Your task to perform on an android device: Empty the shopping cart on ebay.com. Search for "razer blackwidow" on ebay.com, select the first entry, and add it to the cart. Image 0: 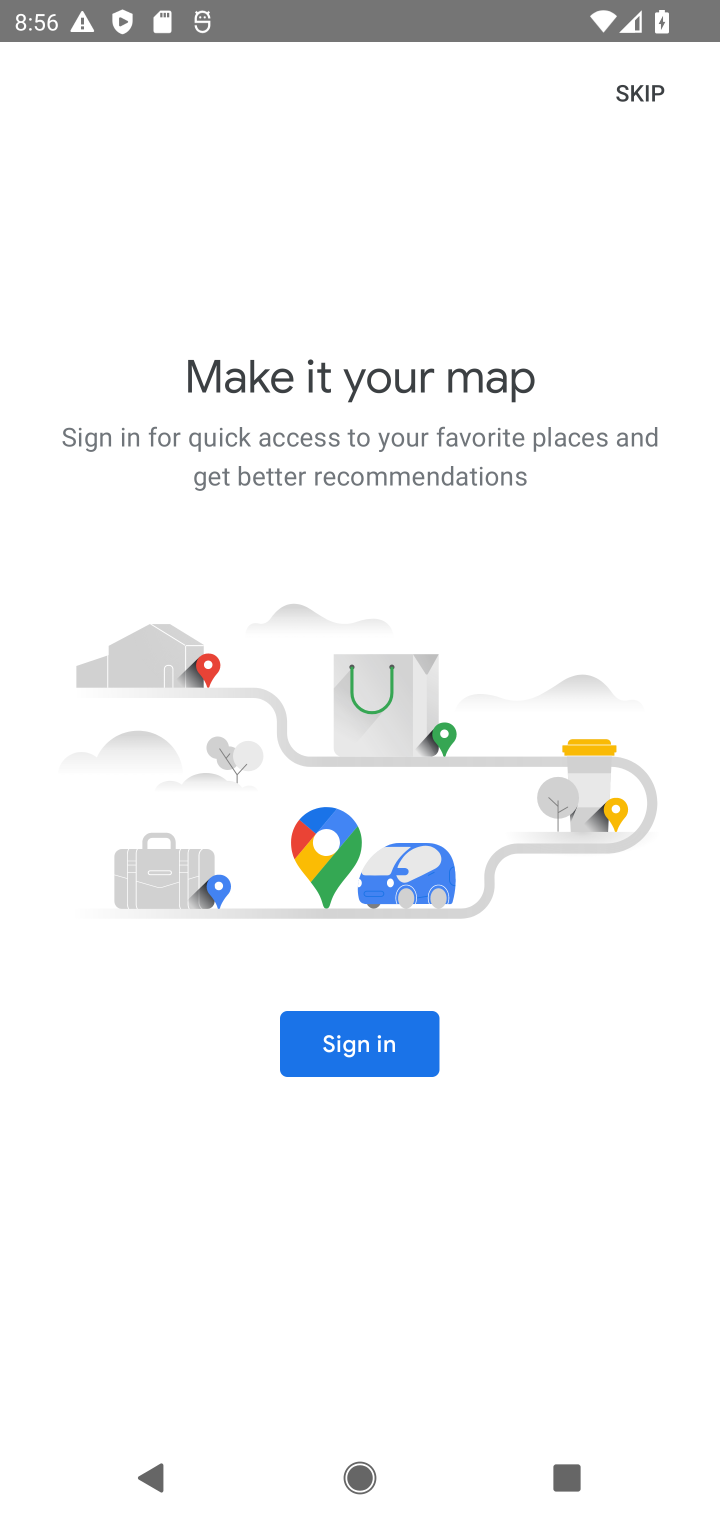
Step 0: press home button
Your task to perform on an android device: Empty the shopping cart on ebay.com. Search for "razer blackwidow" on ebay.com, select the first entry, and add it to the cart. Image 1: 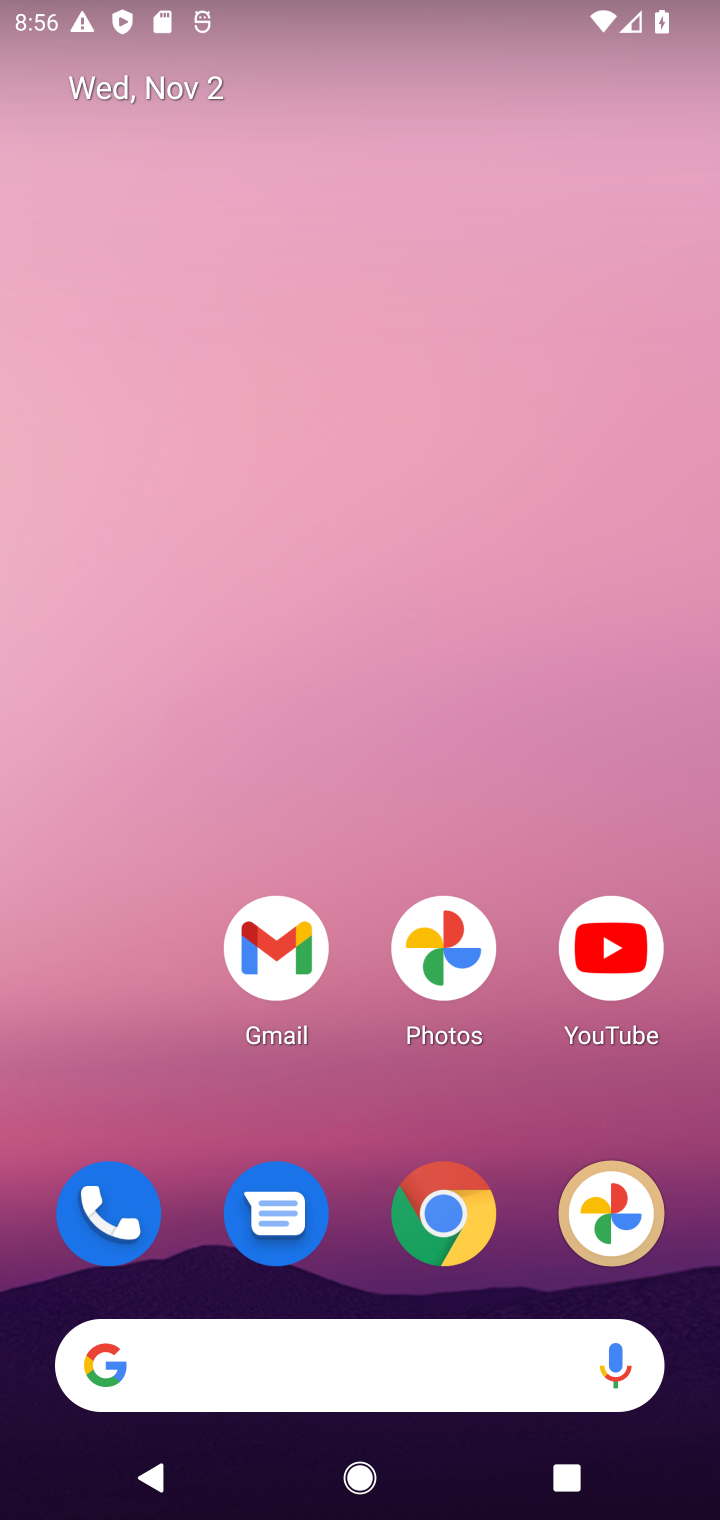
Step 1: click (464, 1231)
Your task to perform on an android device: Empty the shopping cart on ebay.com. Search for "razer blackwidow" on ebay.com, select the first entry, and add it to the cart. Image 2: 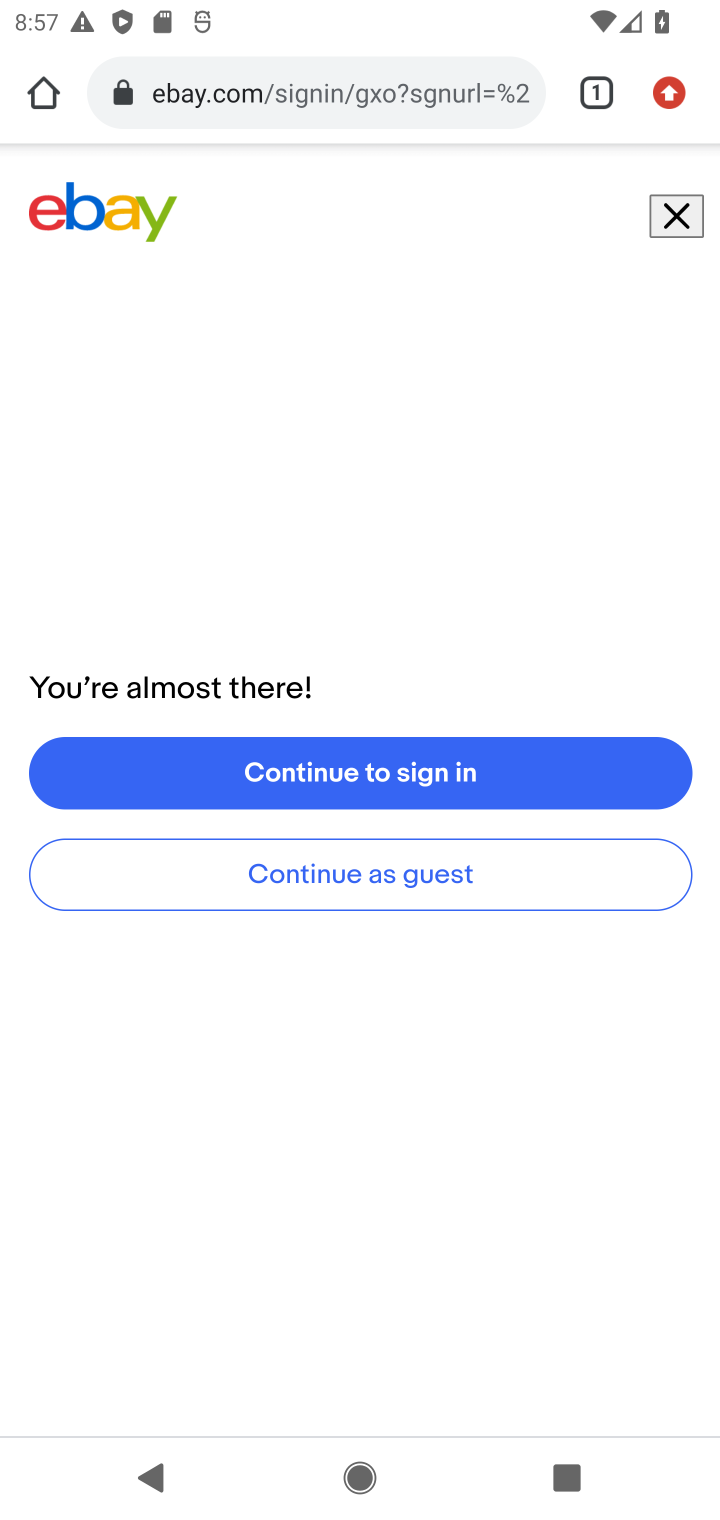
Step 2: click (678, 212)
Your task to perform on an android device: Empty the shopping cart on ebay.com. Search for "razer blackwidow" on ebay.com, select the first entry, and add it to the cart. Image 3: 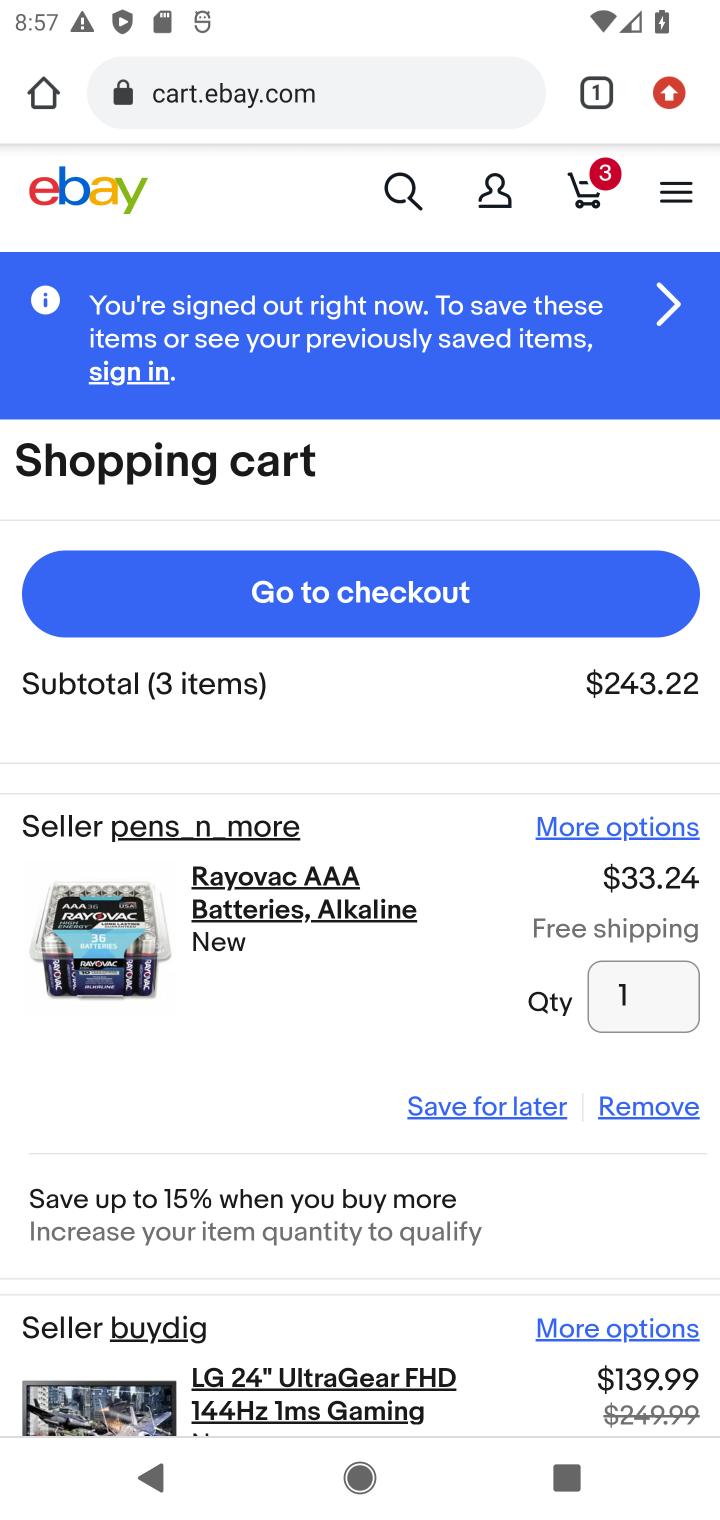
Step 3: click (581, 189)
Your task to perform on an android device: Empty the shopping cart on ebay.com. Search for "razer blackwidow" on ebay.com, select the first entry, and add it to the cart. Image 4: 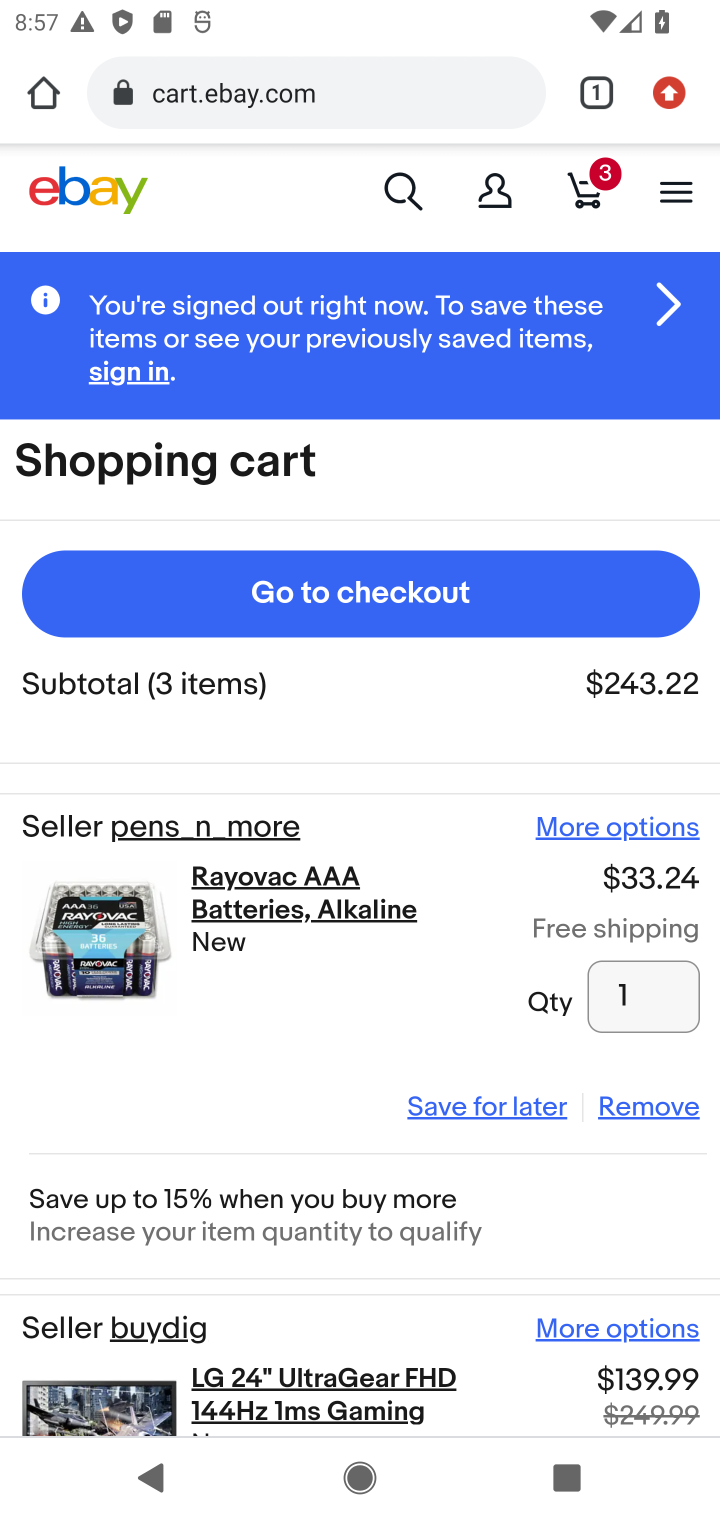
Step 4: click (662, 1108)
Your task to perform on an android device: Empty the shopping cart on ebay.com. Search for "razer blackwidow" on ebay.com, select the first entry, and add it to the cart. Image 5: 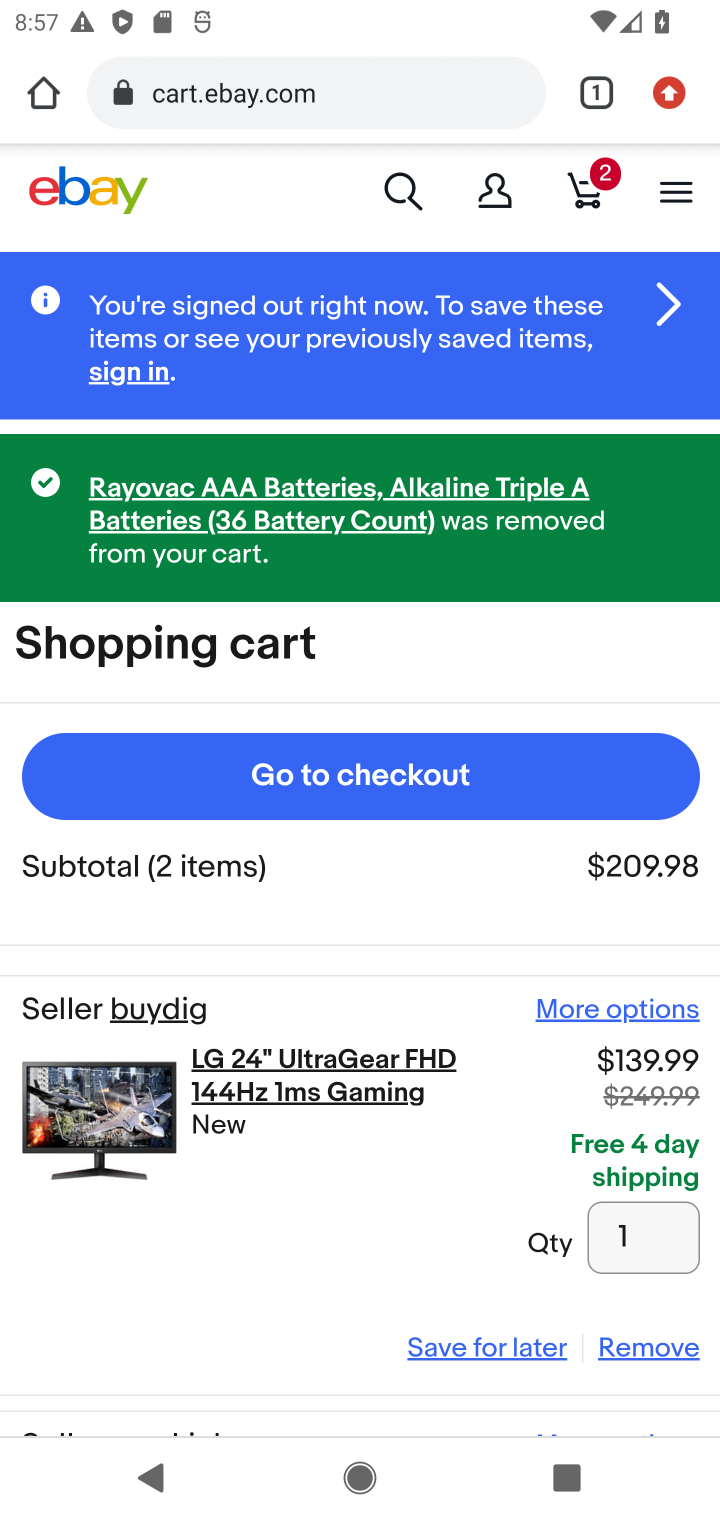
Step 5: click (633, 1341)
Your task to perform on an android device: Empty the shopping cart on ebay.com. Search for "razer blackwidow" on ebay.com, select the first entry, and add it to the cart. Image 6: 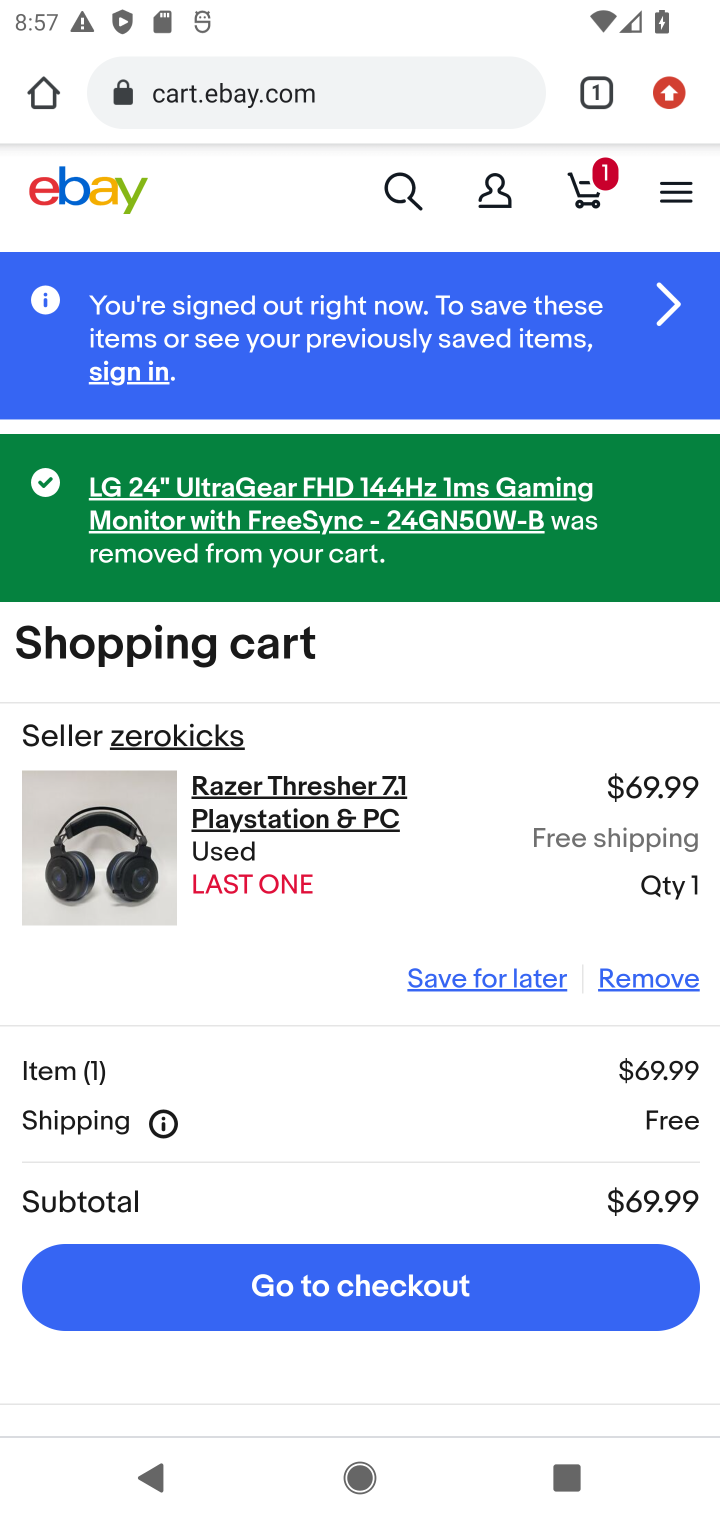
Step 6: click (616, 986)
Your task to perform on an android device: Empty the shopping cart on ebay.com. Search for "razer blackwidow" on ebay.com, select the first entry, and add it to the cart. Image 7: 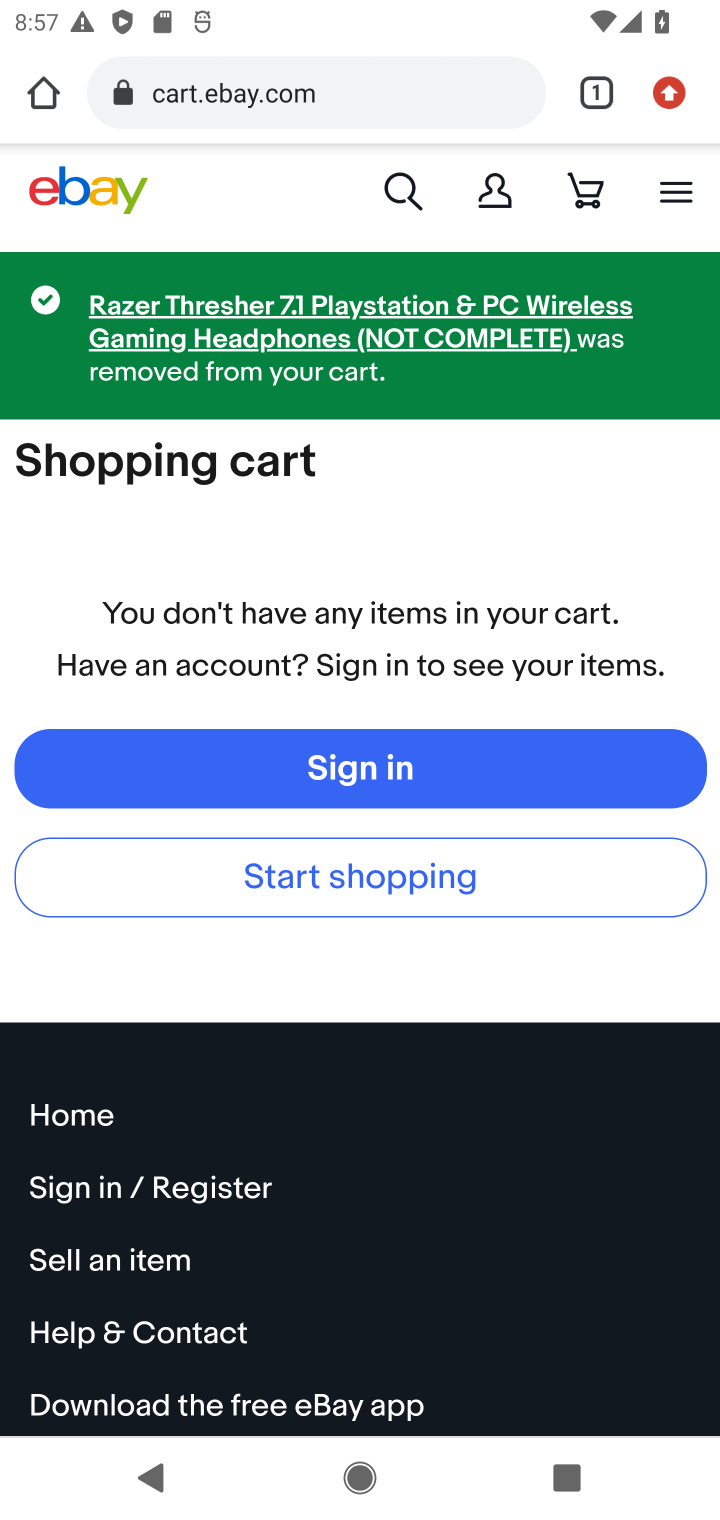
Step 7: click (404, 188)
Your task to perform on an android device: Empty the shopping cart on ebay.com. Search for "razer blackwidow" on ebay.com, select the first entry, and add it to the cart. Image 8: 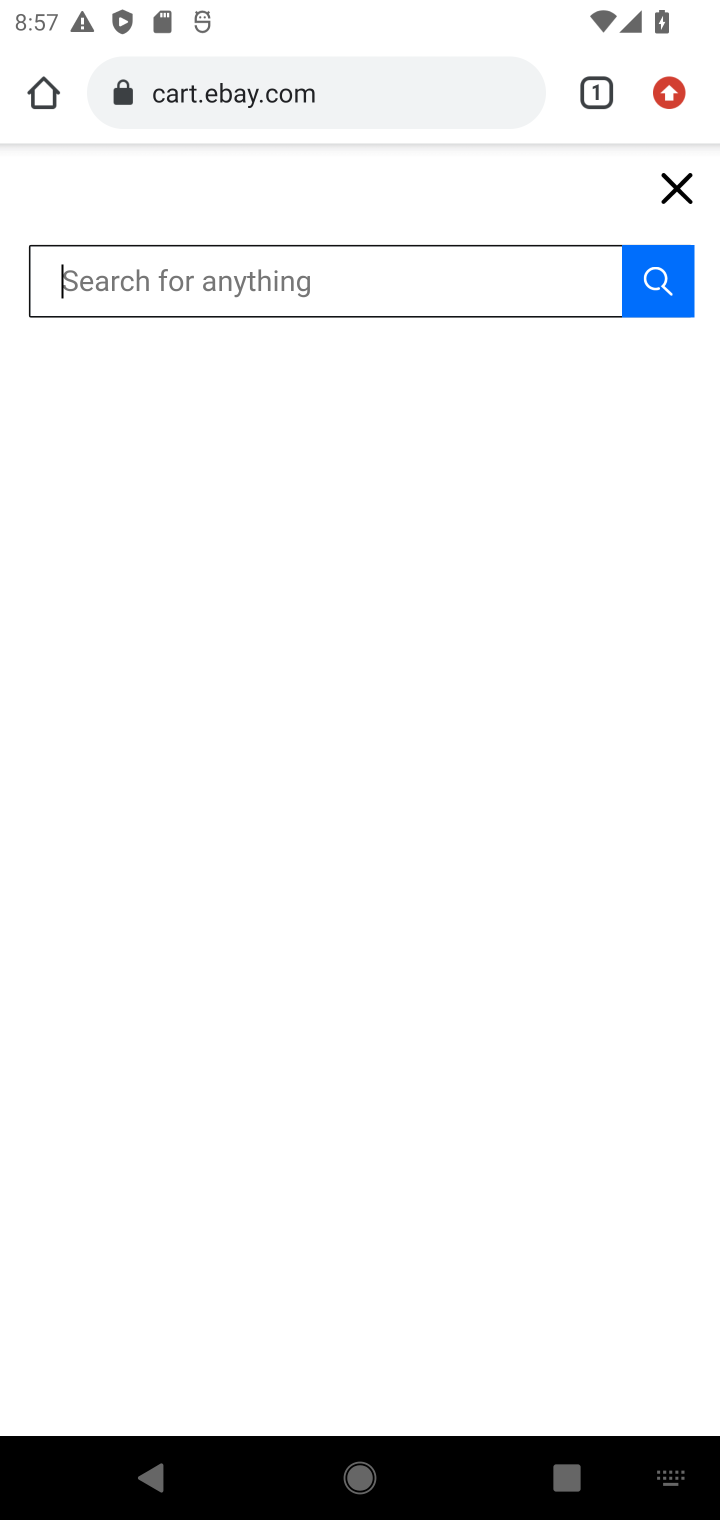
Step 8: type "razer blackwidow"
Your task to perform on an android device: Empty the shopping cart on ebay.com. Search for "razer blackwidow" on ebay.com, select the first entry, and add it to the cart. Image 9: 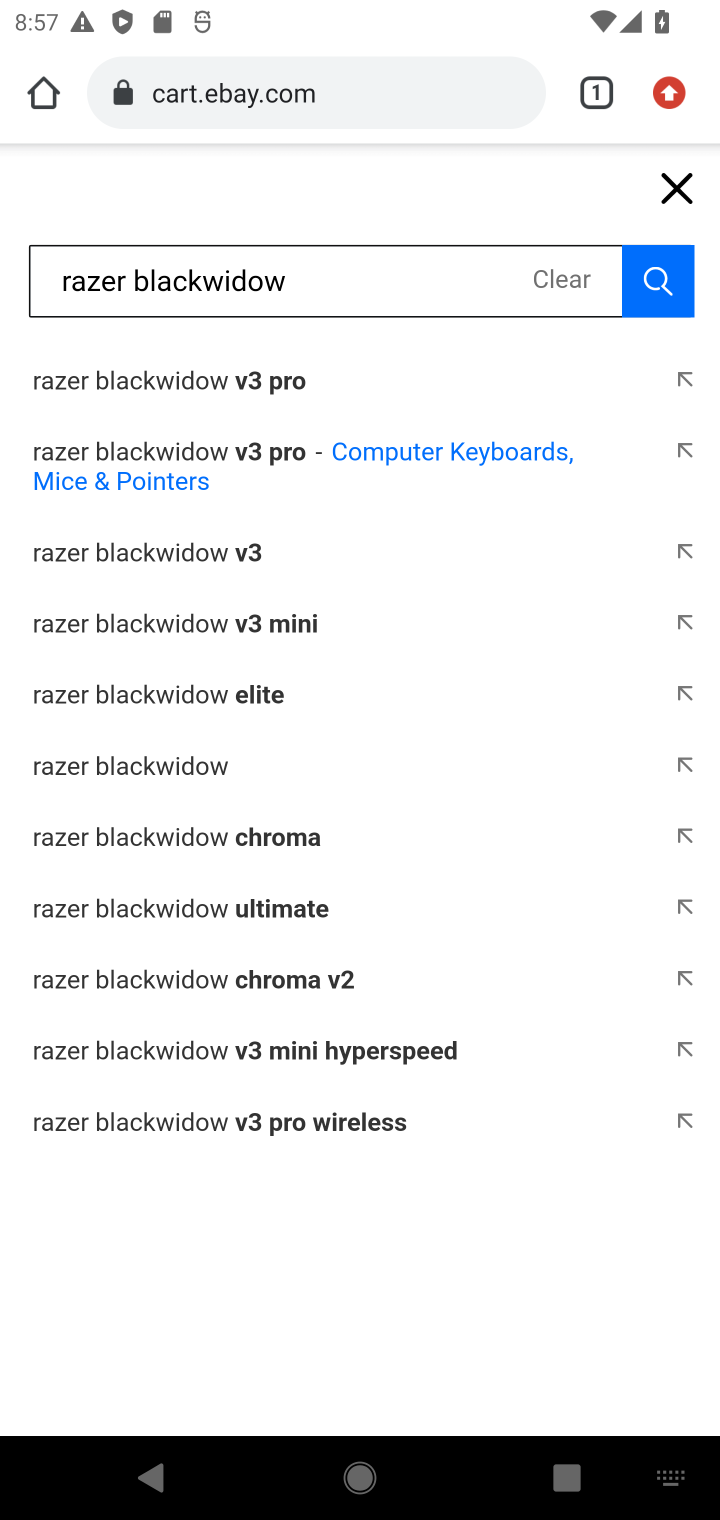
Step 9: click (142, 775)
Your task to perform on an android device: Empty the shopping cart on ebay.com. Search for "razer blackwidow" on ebay.com, select the first entry, and add it to the cart. Image 10: 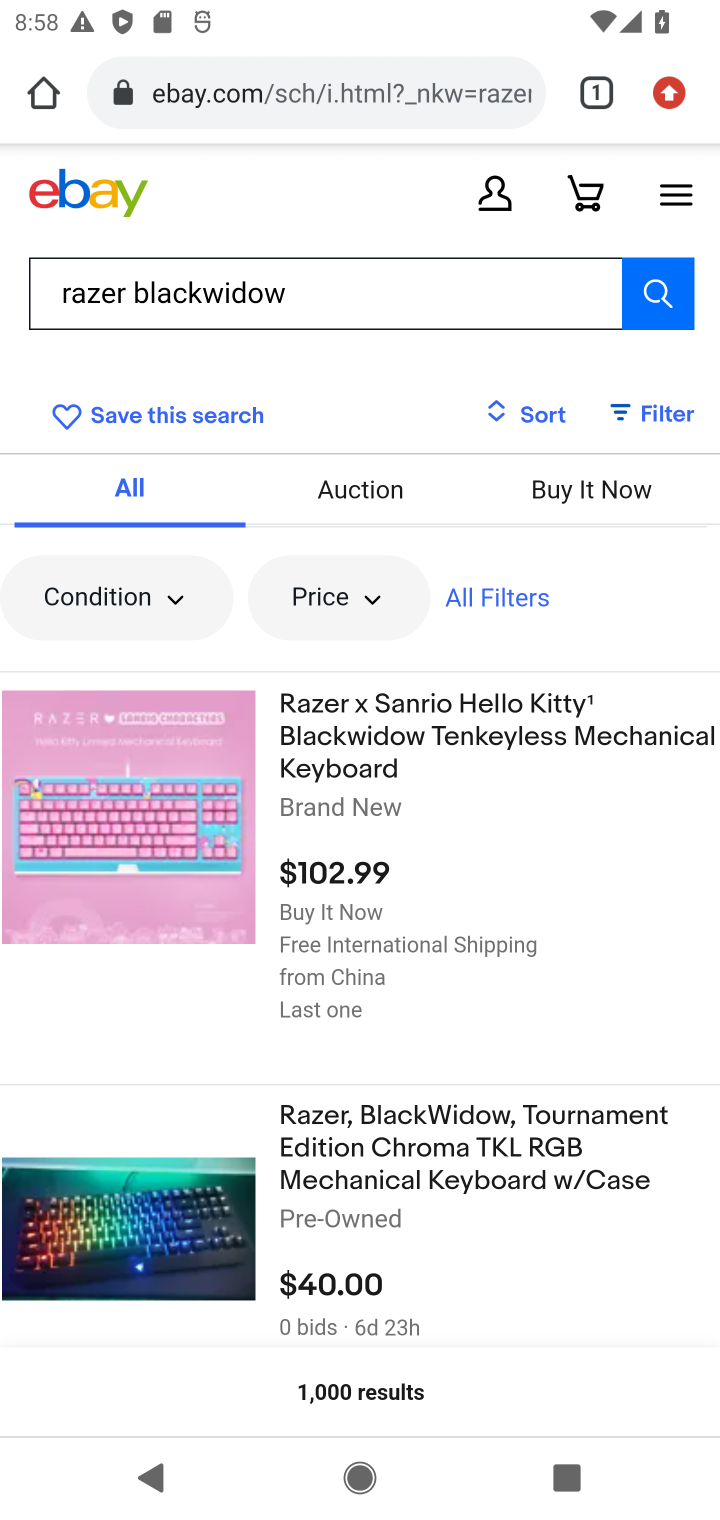
Step 10: click (163, 796)
Your task to perform on an android device: Empty the shopping cart on ebay.com. Search for "razer blackwidow" on ebay.com, select the first entry, and add it to the cart. Image 11: 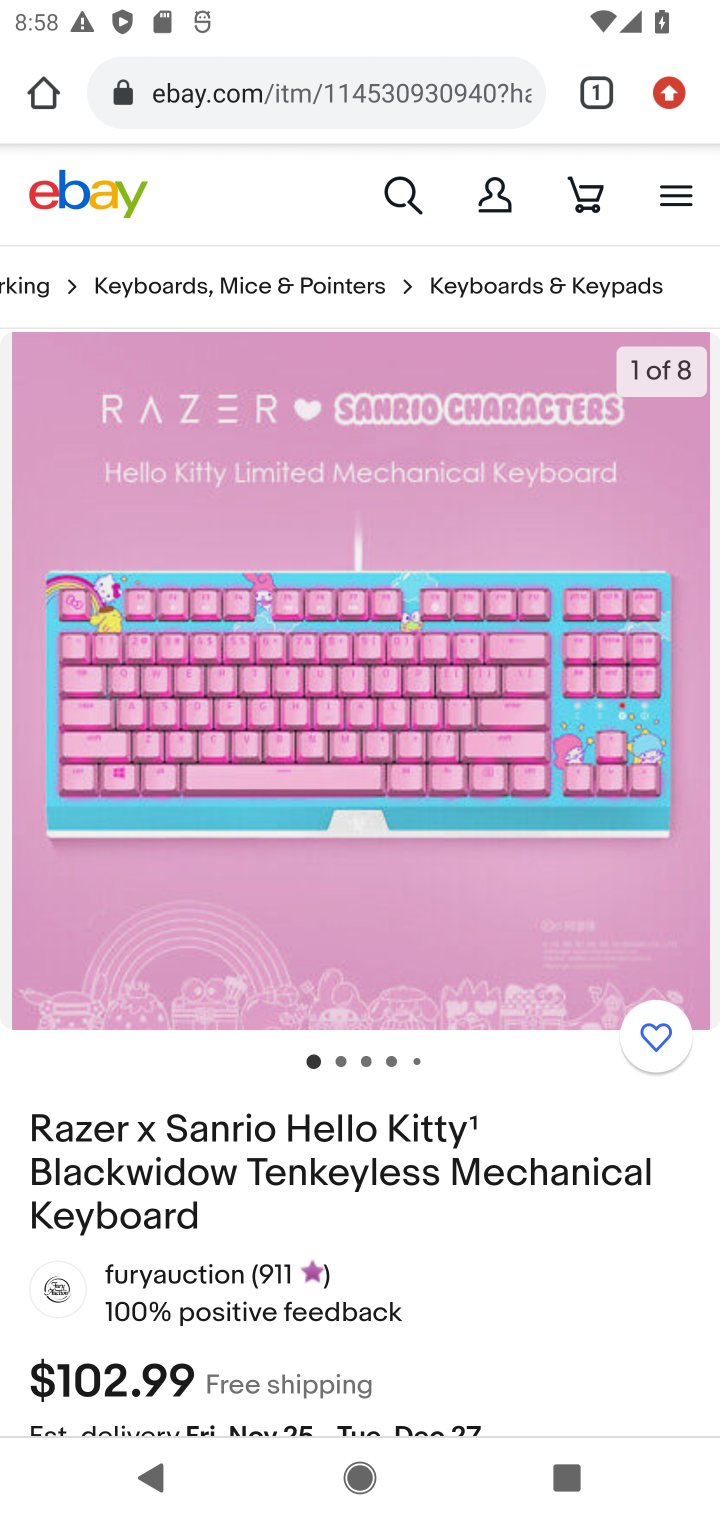
Step 11: task complete